Your task to perform on an android device: Search for "razer blade" on target, select the first entry, add it to the cart, then select checkout. Image 0: 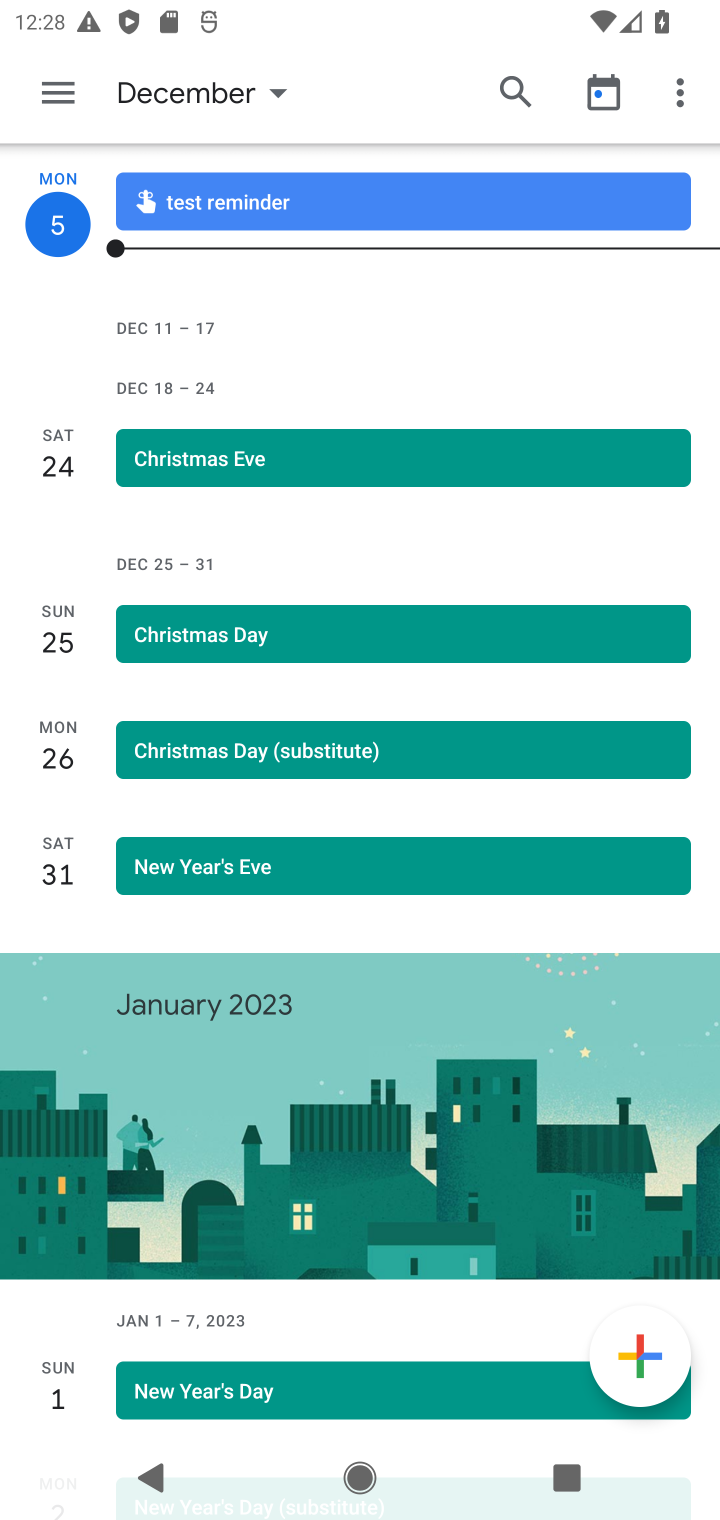
Step 0: press home button
Your task to perform on an android device: Search for "razer blade" on target, select the first entry, add it to the cart, then select checkout. Image 1: 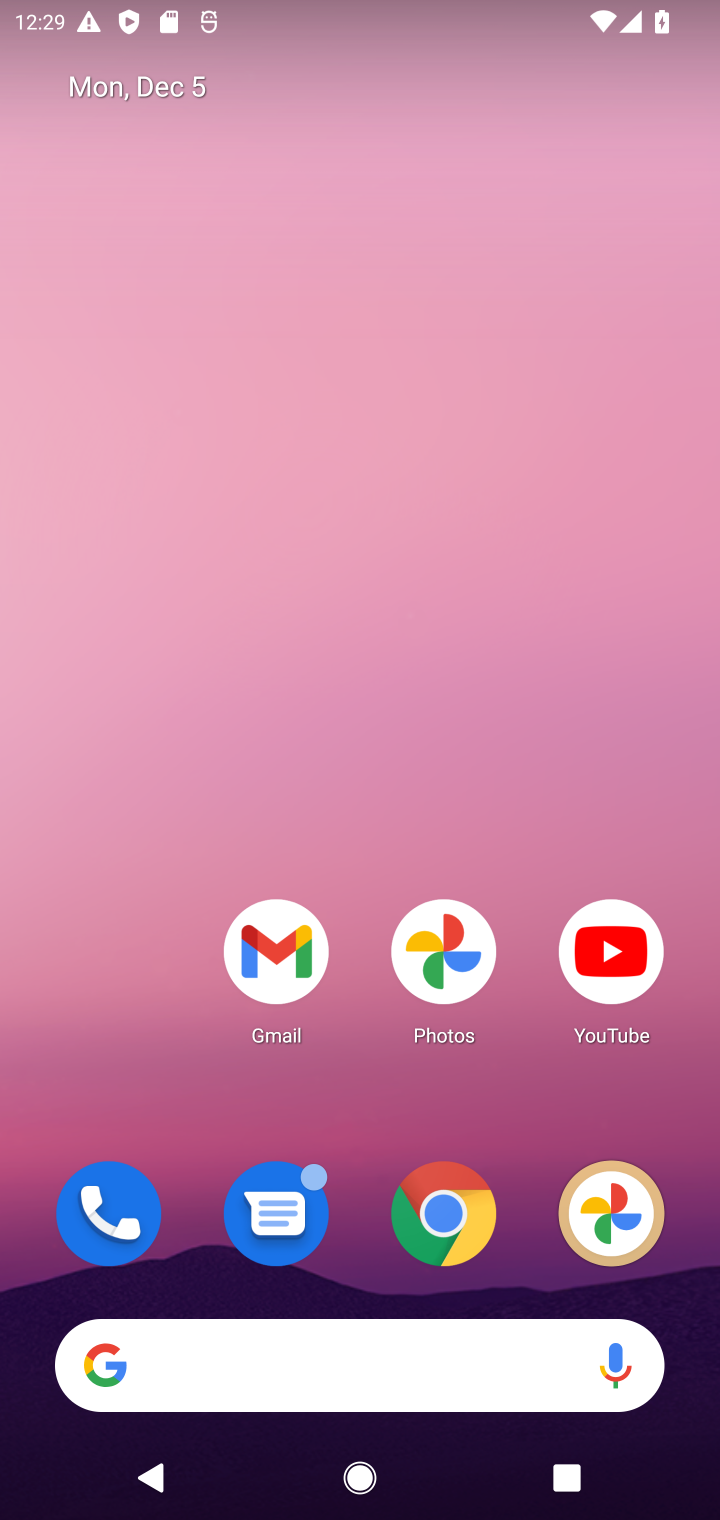
Step 1: click (438, 1234)
Your task to perform on an android device: Search for "razer blade" on target, select the first entry, add it to the cart, then select checkout. Image 2: 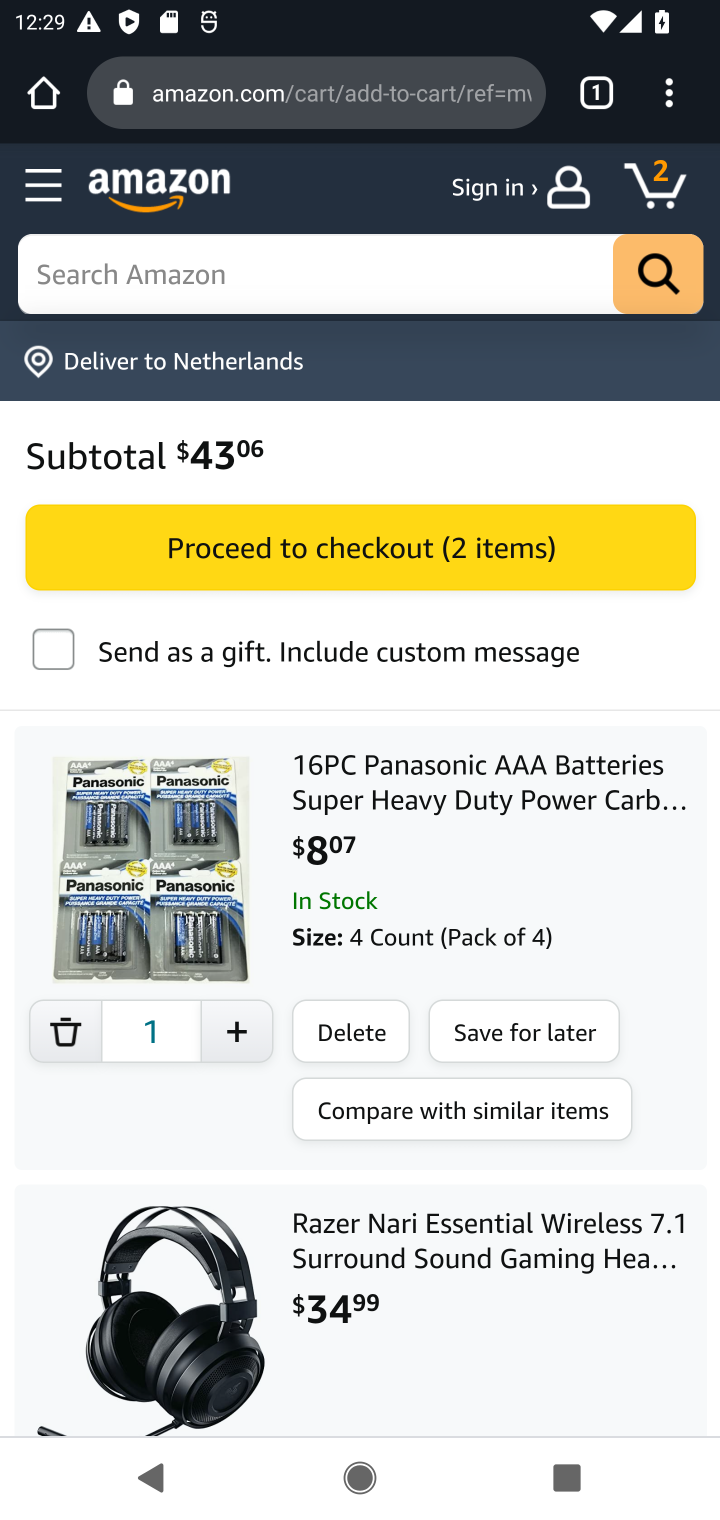
Step 2: click (299, 108)
Your task to perform on an android device: Search for "razer blade" on target, select the first entry, add it to the cart, then select checkout. Image 3: 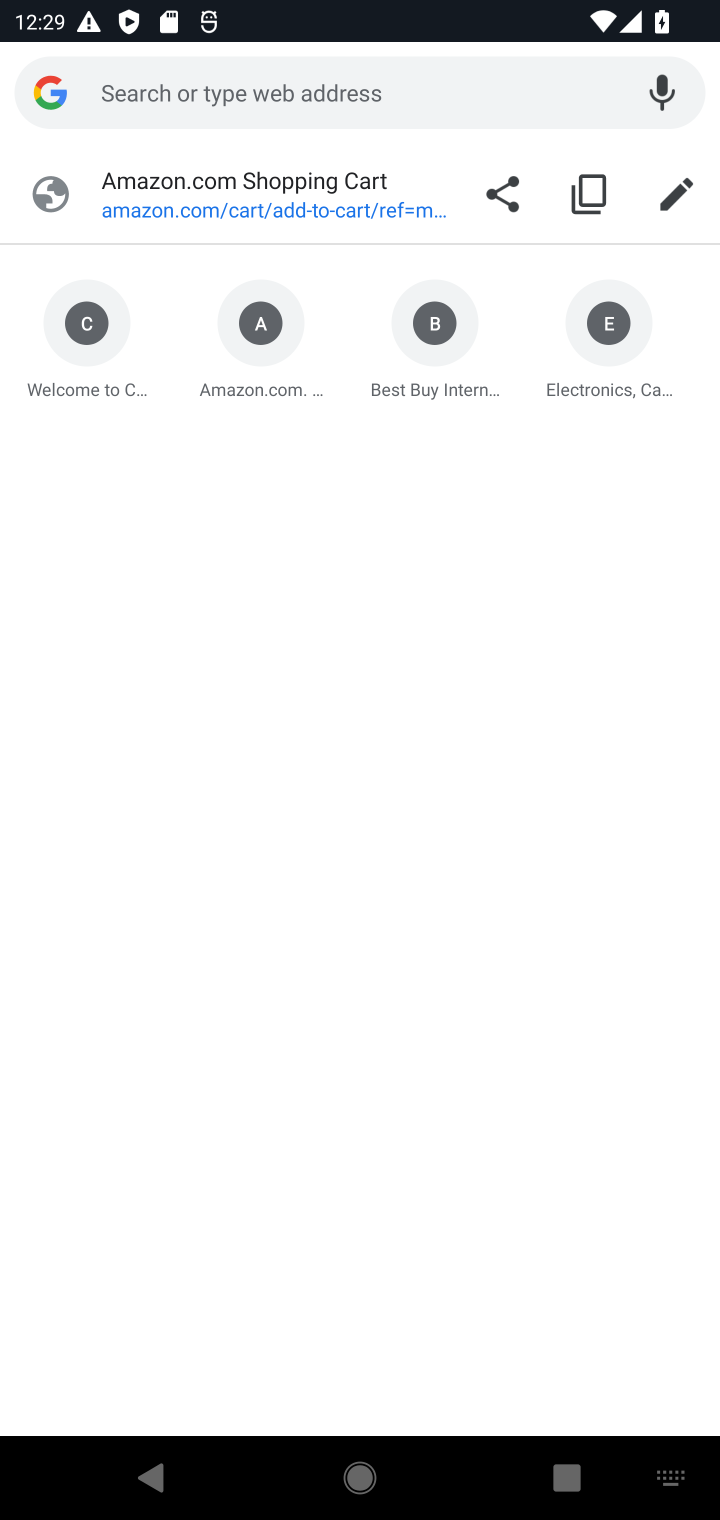
Step 3: type "target.com"
Your task to perform on an android device: Search for "razer blade" on target, select the first entry, add it to the cart, then select checkout. Image 4: 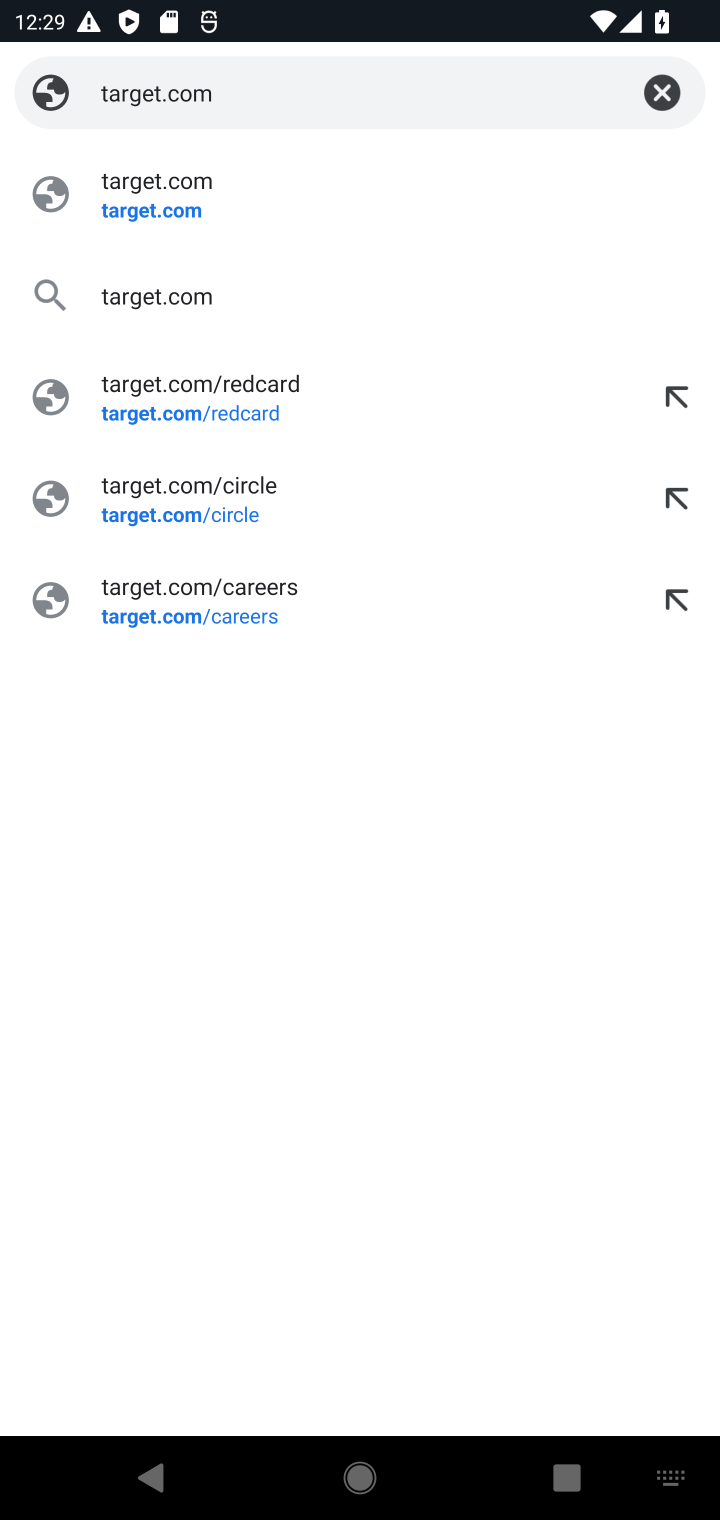
Step 4: click (152, 202)
Your task to perform on an android device: Search for "razer blade" on target, select the first entry, add it to the cart, then select checkout. Image 5: 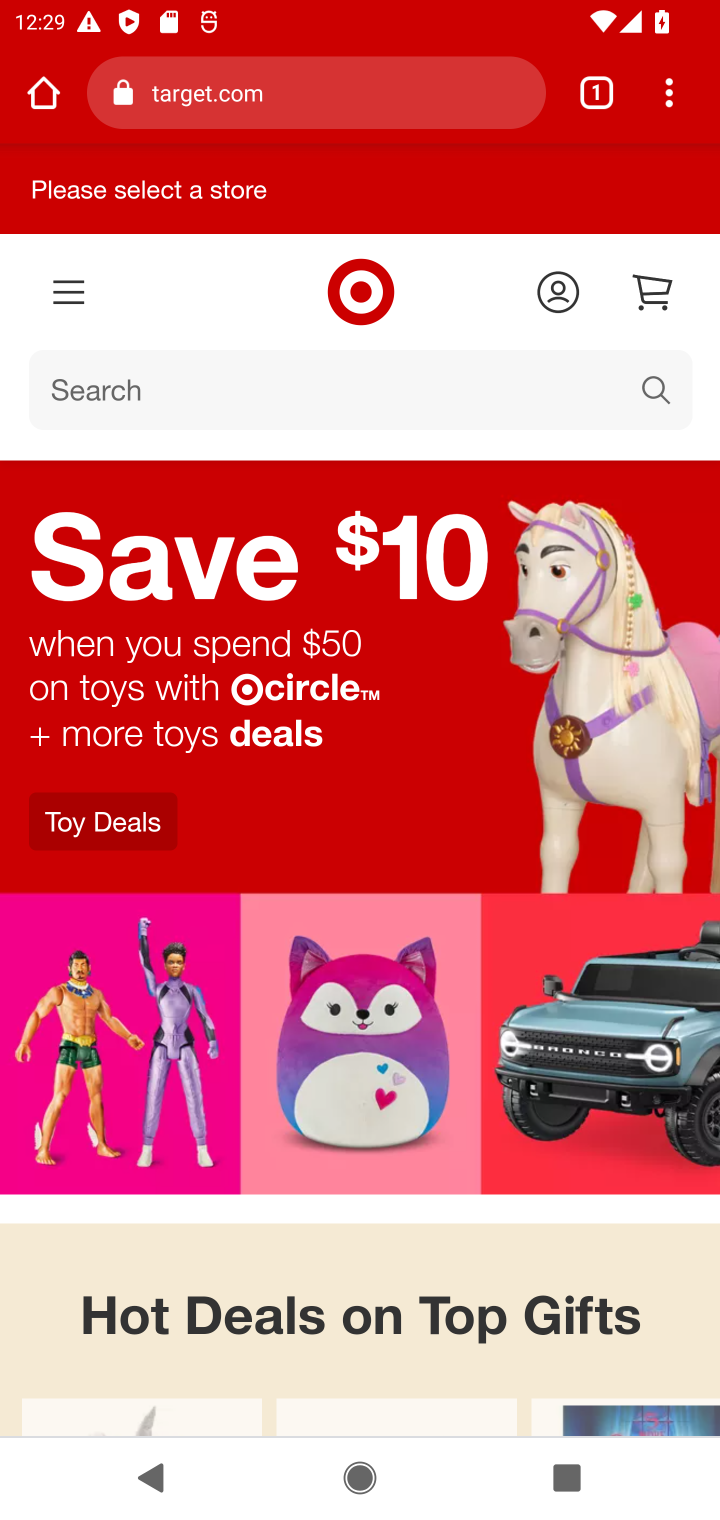
Step 5: click (48, 393)
Your task to perform on an android device: Search for "razer blade" on target, select the first entry, add it to the cart, then select checkout. Image 6: 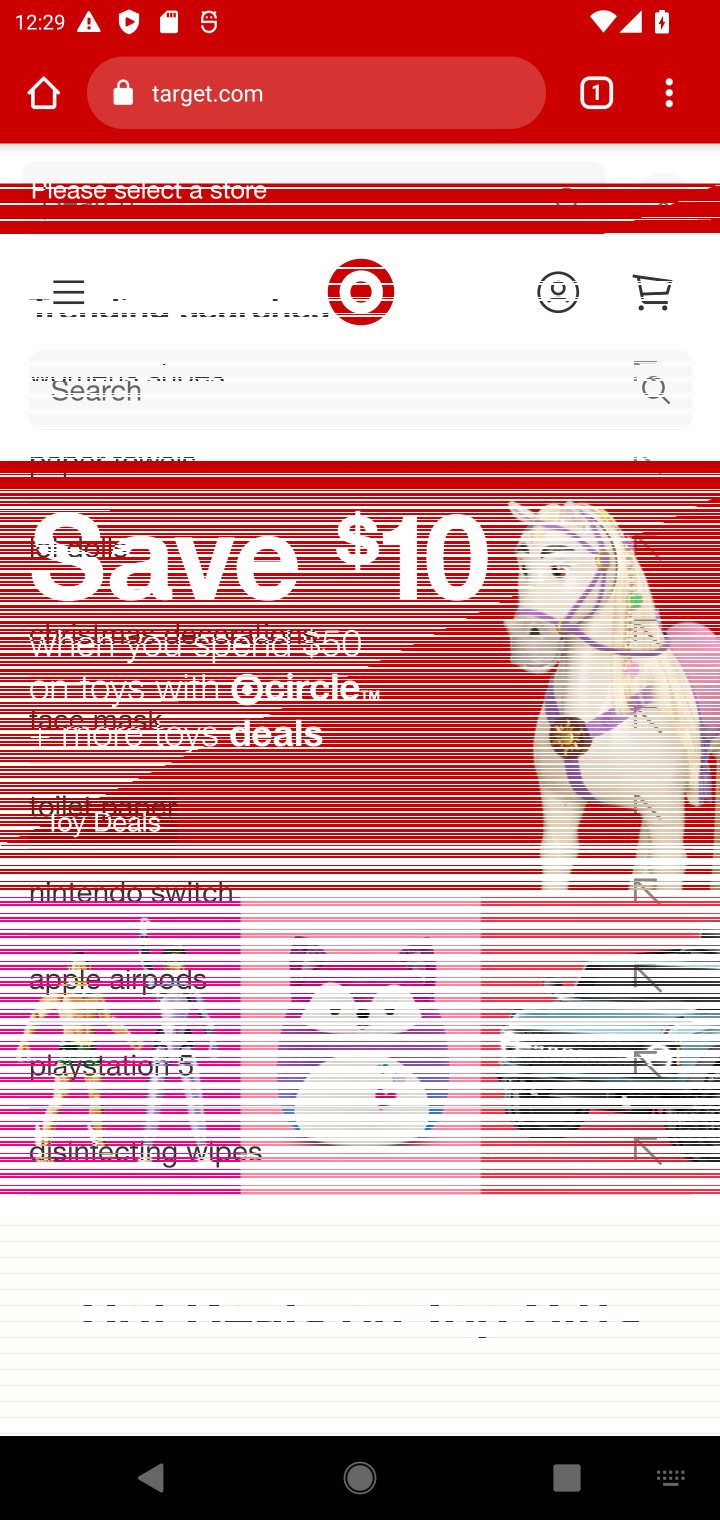
Step 6: type "razer blade"
Your task to perform on an android device: Search for "razer blade" on target, select the first entry, add it to the cart, then select checkout. Image 7: 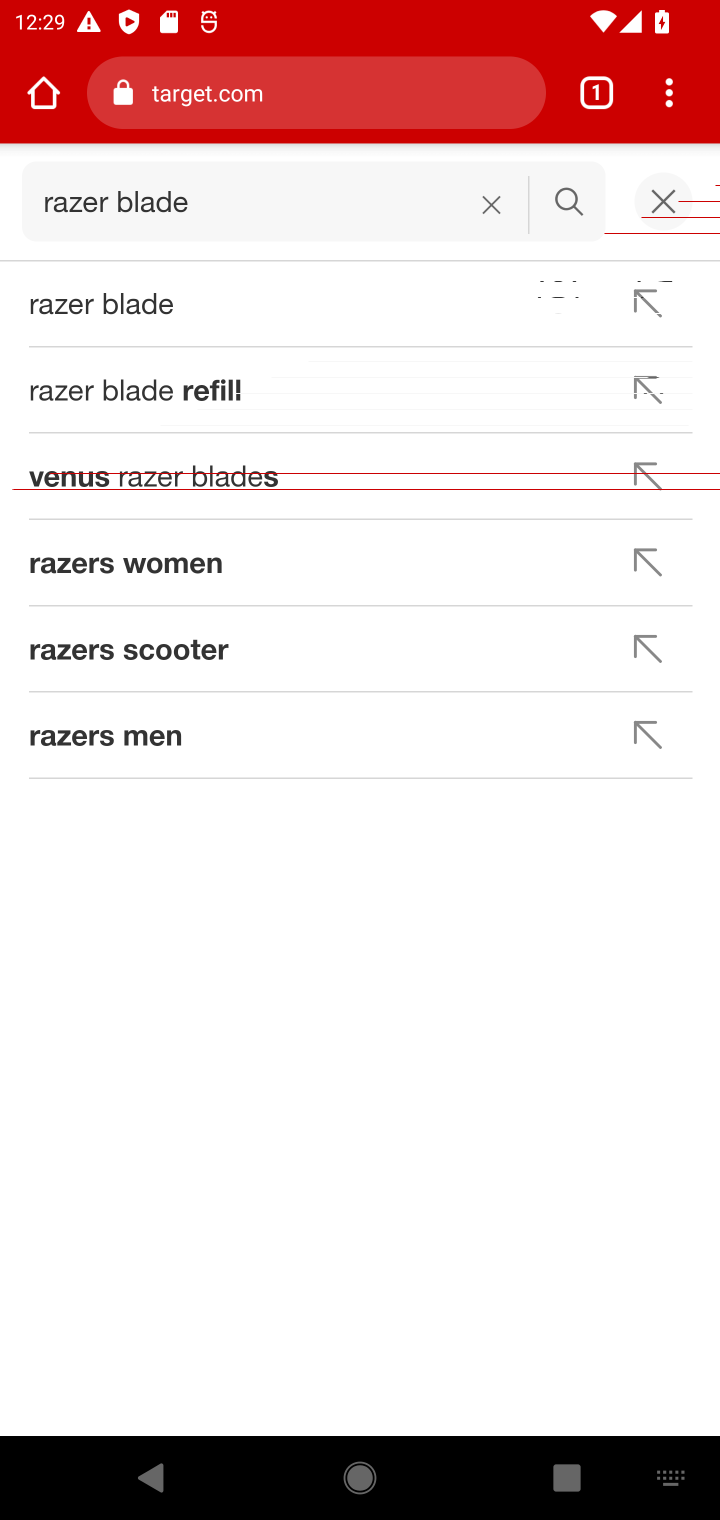
Step 7: click (111, 319)
Your task to perform on an android device: Search for "razer blade" on target, select the first entry, add it to the cart, then select checkout. Image 8: 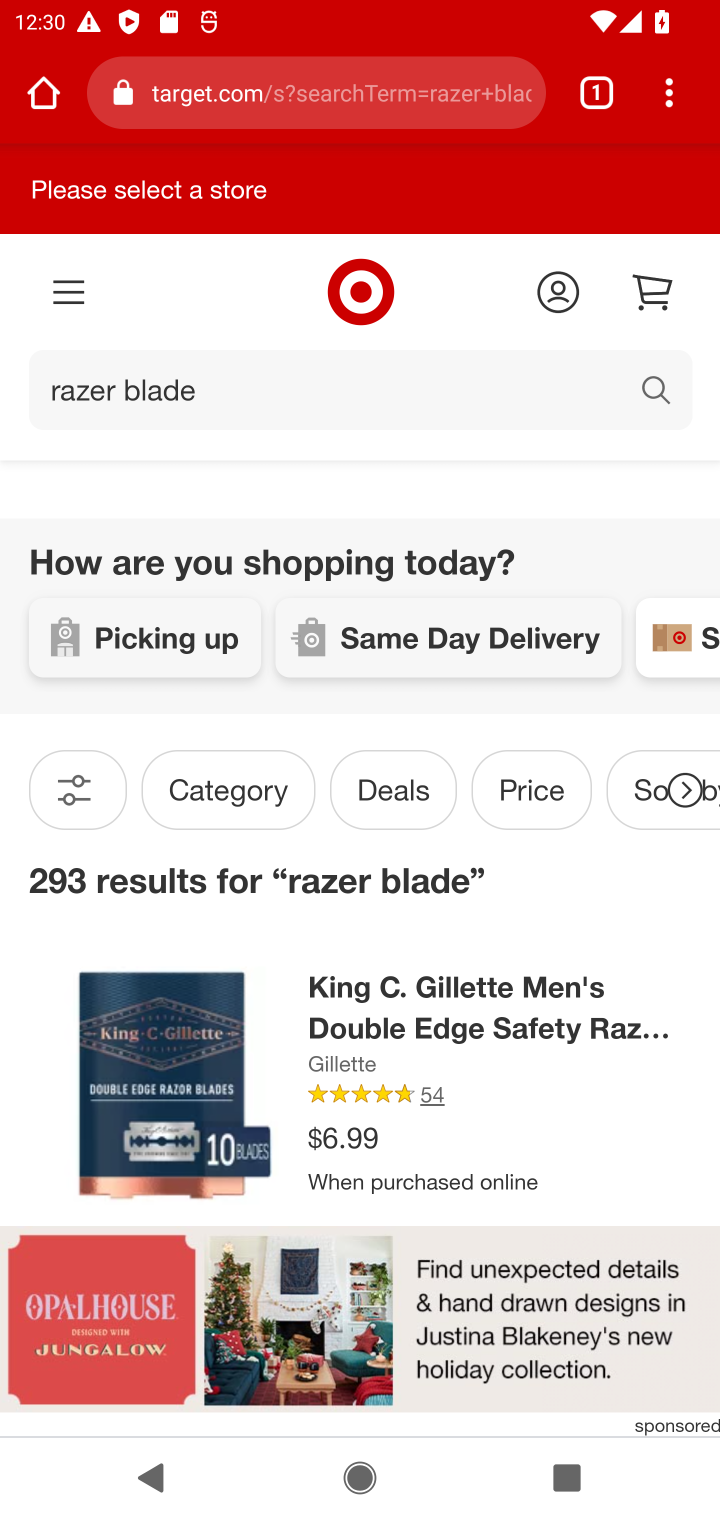
Step 8: task complete